Your task to perform on an android device: Open Google Maps and go to "Timeline" Image 0: 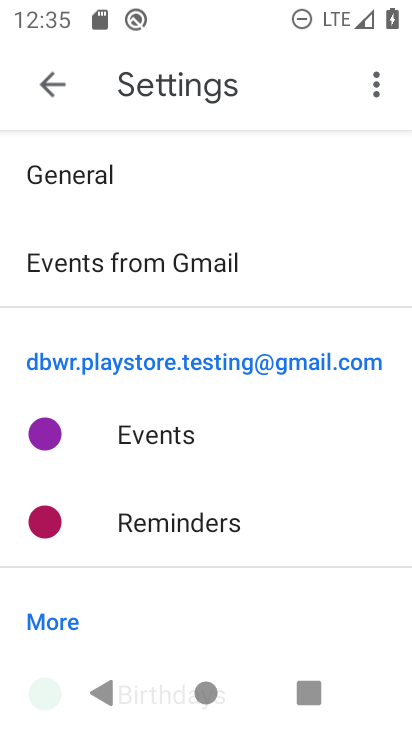
Step 0: press home button
Your task to perform on an android device: Open Google Maps and go to "Timeline" Image 1: 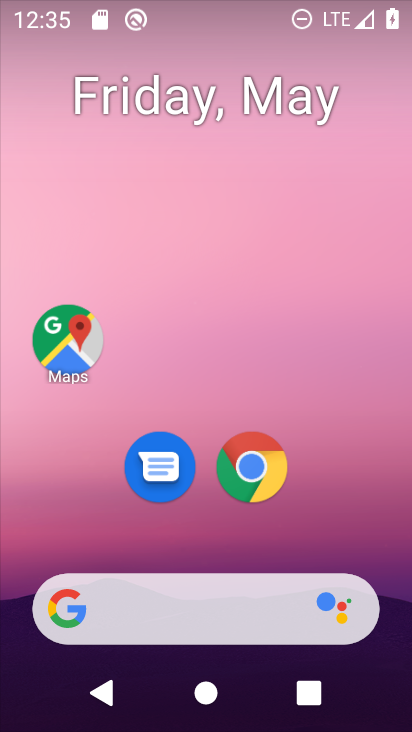
Step 1: drag from (285, 495) to (260, 0)
Your task to perform on an android device: Open Google Maps and go to "Timeline" Image 2: 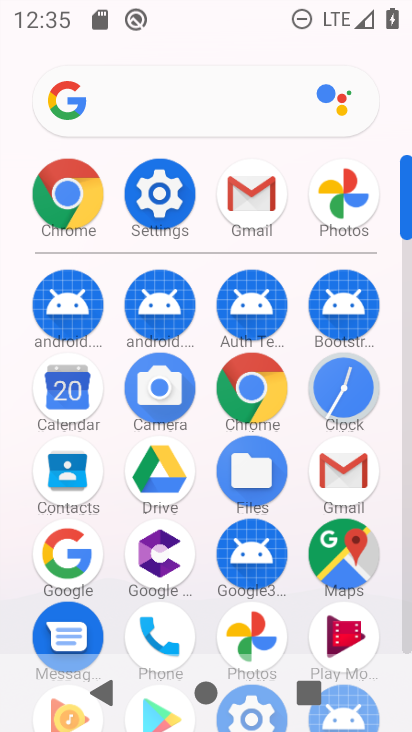
Step 2: click (318, 544)
Your task to perform on an android device: Open Google Maps and go to "Timeline" Image 3: 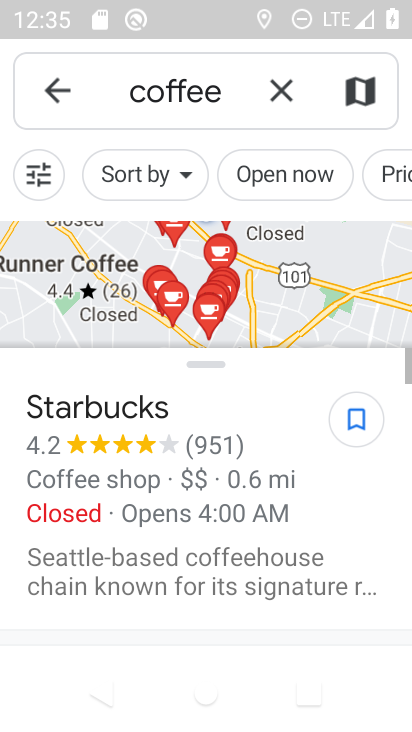
Step 3: press back button
Your task to perform on an android device: Open Google Maps and go to "Timeline" Image 4: 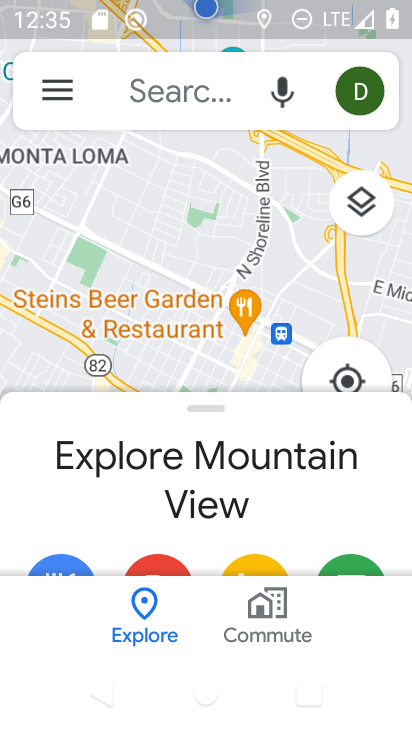
Step 4: click (68, 83)
Your task to perform on an android device: Open Google Maps and go to "Timeline" Image 5: 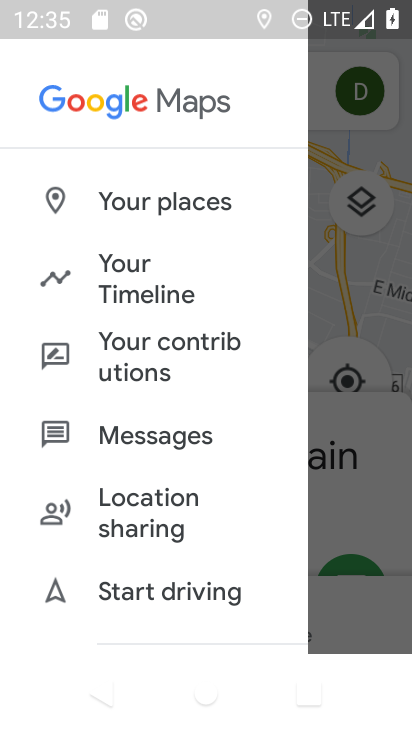
Step 5: click (171, 283)
Your task to perform on an android device: Open Google Maps and go to "Timeline" Image 6: 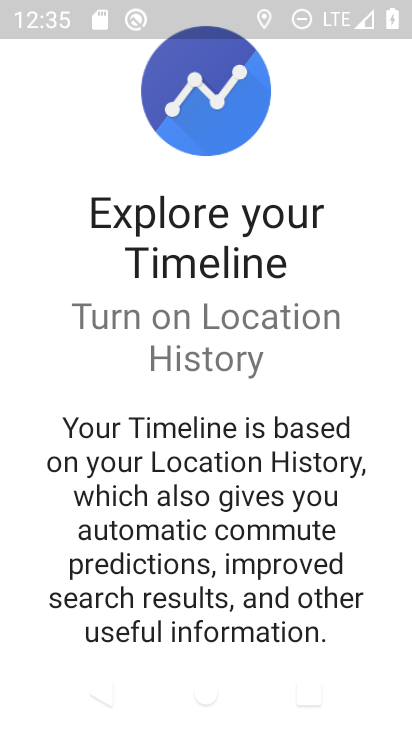
Step 6: drag from (307, 587) to (348, 81)
Your task to perform on an android device: Open Google Maps and go to "Timeline" Image 7: 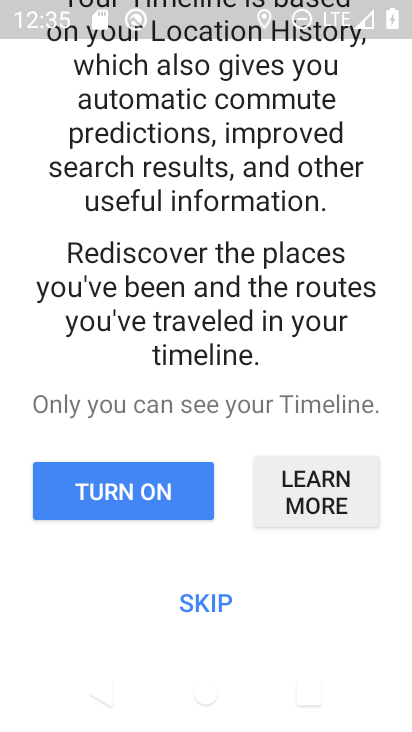
Step 7: click (214, 597)
Your task to perform on an android device: Open Google Maps and go to "Timeline" Image 8: 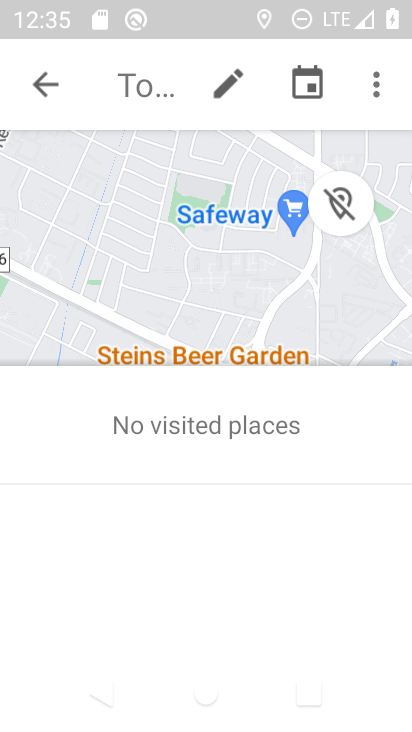
Step 8: task complete